Your task to perform on an android device: turn on improve location accuracy Image 0: 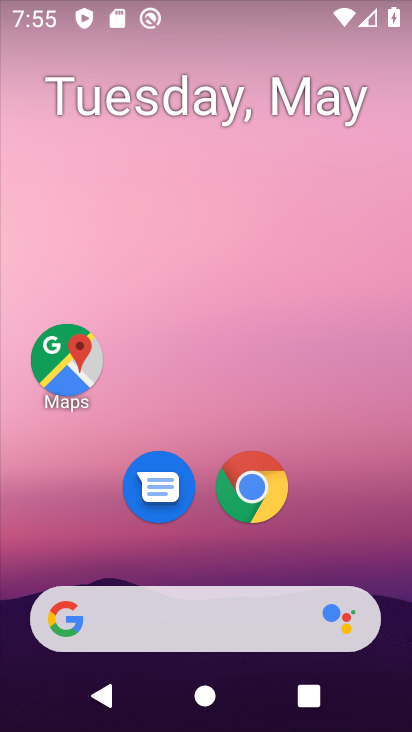
Step 0: drag from (318, 524) to (337, 339)
Your task to perform on an android device: turn on improve location accuracy Image 1: 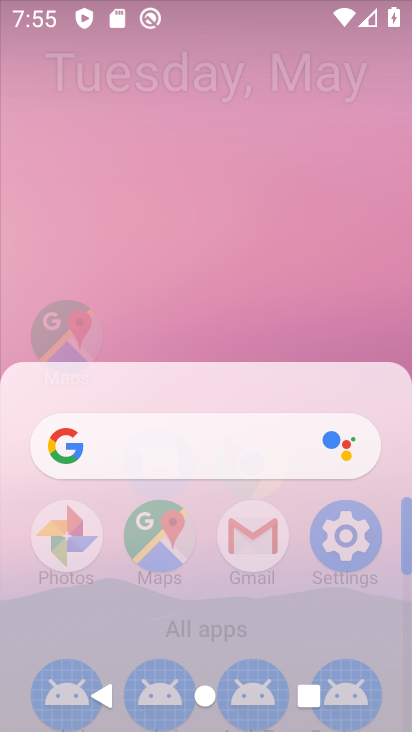
Step 1: click (352, 178)
Your task to perform on an android device: turn on improve location accuracy Image 2: 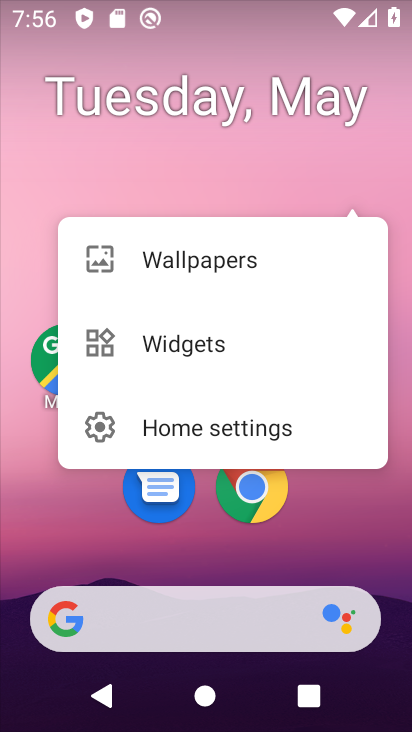
Step 2: click (320, 519)
Your task to perform on an android device: turn on improve location accuracy Image 3: 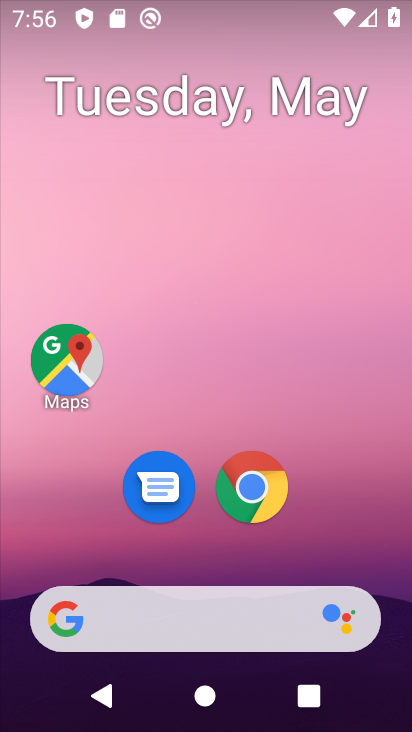
Step 3: drag from (320, 541) to (332, 99)
Your task to perform on an android device: turn on improve location accuracy Image 4: 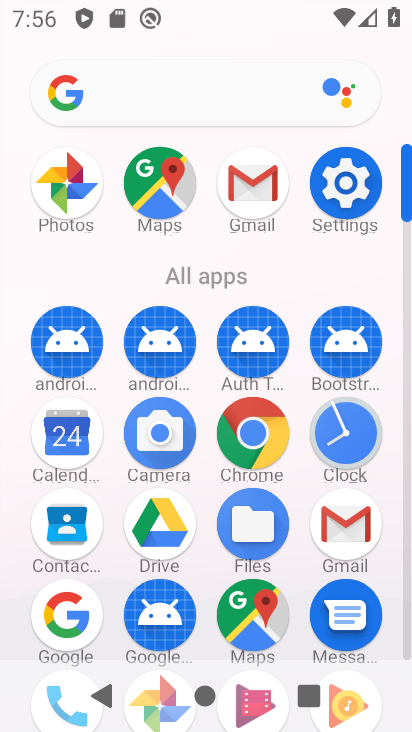
Step 4: click (346, 194)
Your task to perform on an android device: turn on improve location accuracy Image 5: 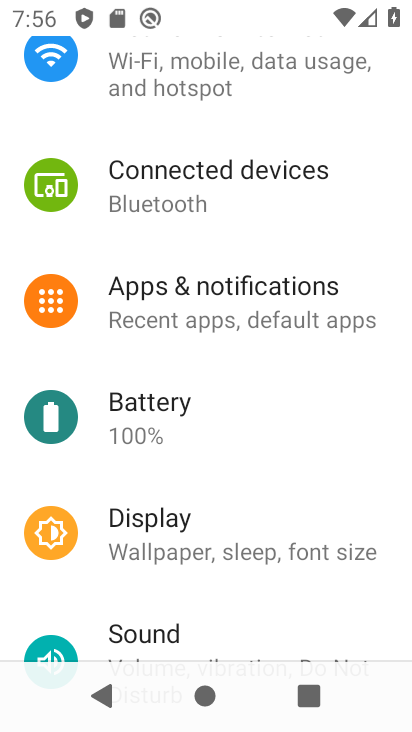
Step 5: drag from (369, 576) to (397, 159)
Your task to perform on an android device: turn on improve location accuracy Image 6: 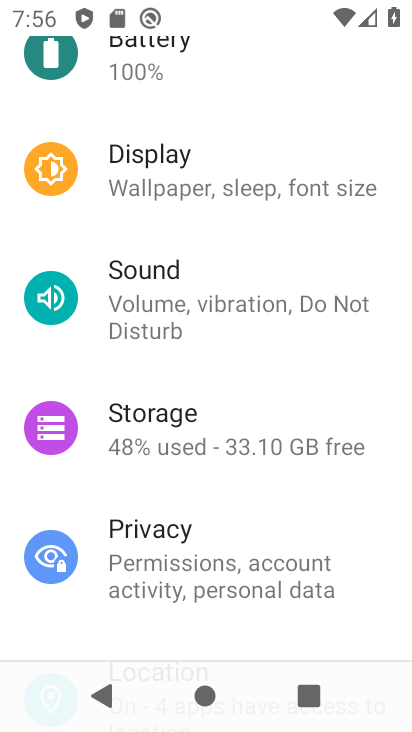
Step 6: drag from (361, 603) to (389, 158)
Your task to perform on an android device: turn on improve location accuracy Image 7: 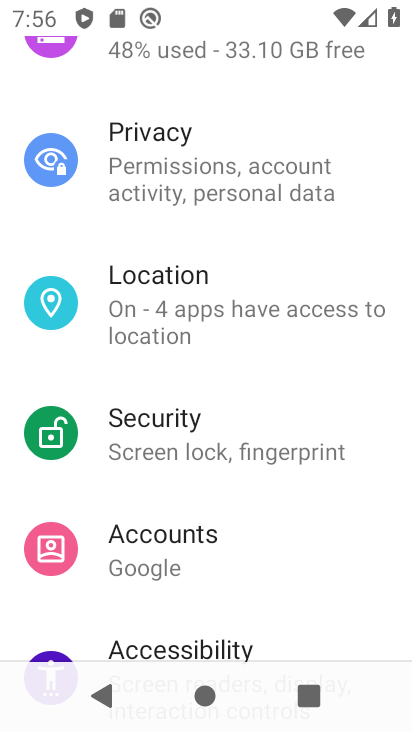
Step 7: click (215, 310)
Your task to perform on an android device: turn on improve location accuracy Image 8: 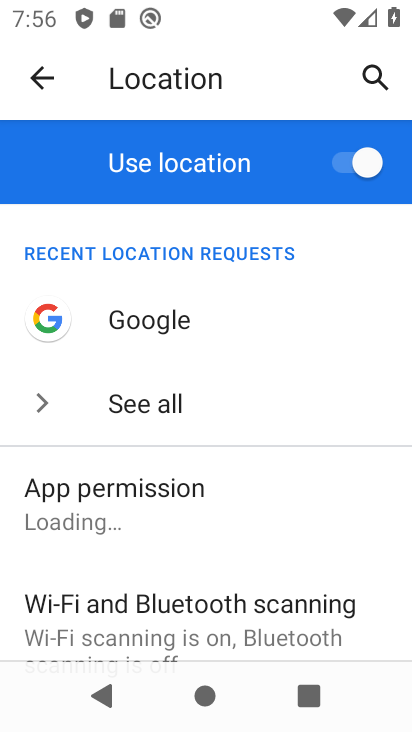
Step 8: drag from (296, 524) to (288, 209)
Your task to perform on an android device: turn on improve location accuracy Image 9: 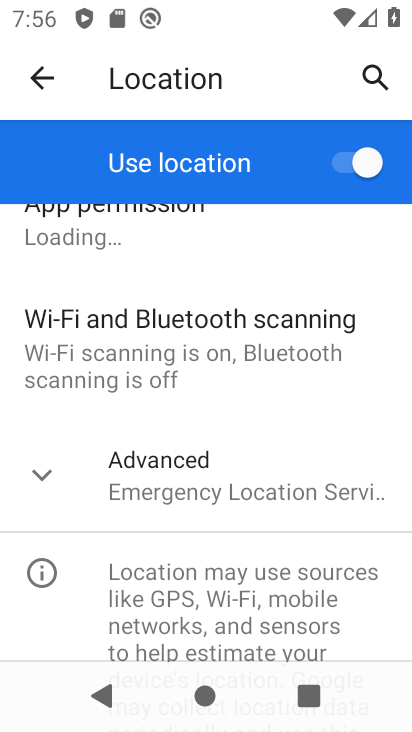
Step 9: click (147, 491)
Your task to perform on an android device: turn on improve location accuracy Image 10: 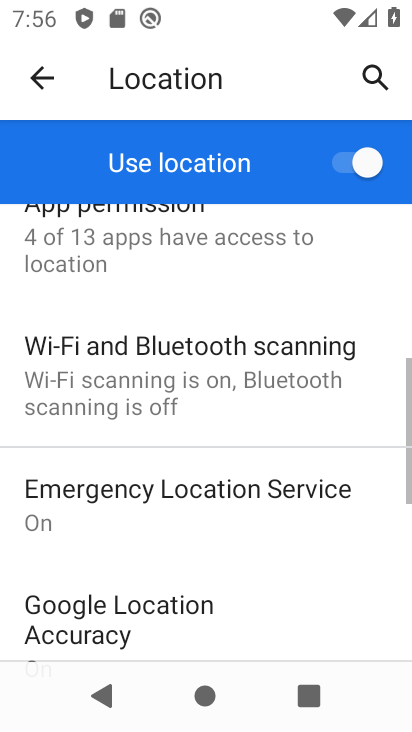
Step 10: drag from (266, 532) to (300, 303)
Your task to perform on an android device: turn on improve location accuracy Image 11: 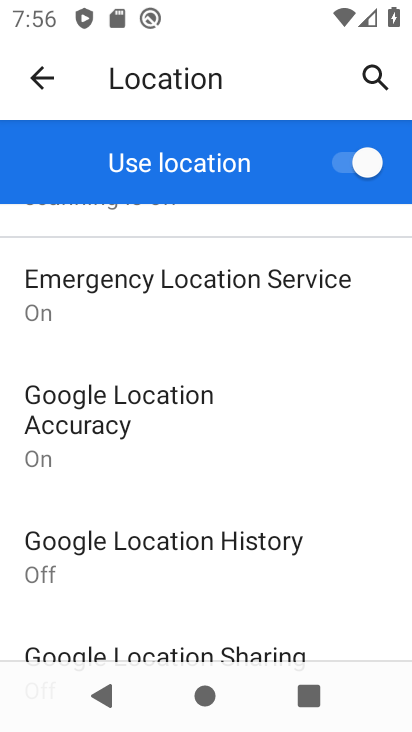
Step 11: click (125, 398)
Your task to perform on an android device: turn on improve location accuracy Image 12: 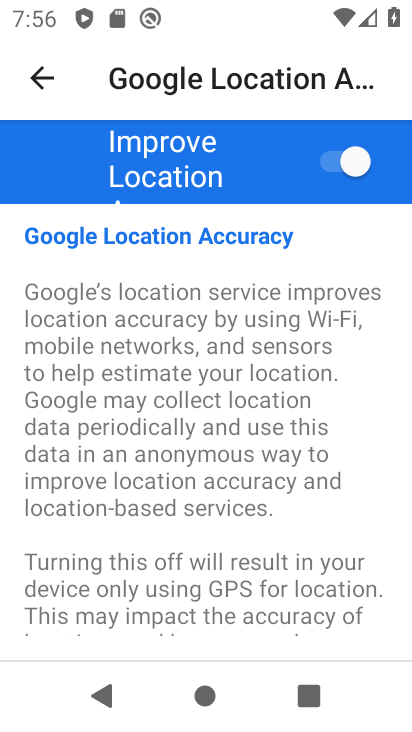
Step 12: task complete